Your task to perform on an android device: Open Wikipedia Image 0: 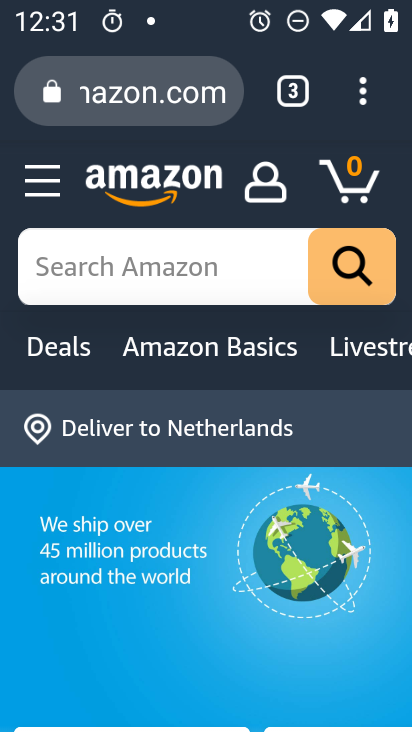
Step 0: press home button
Your task to perform on an android device: Open Wikipedia Image 1: 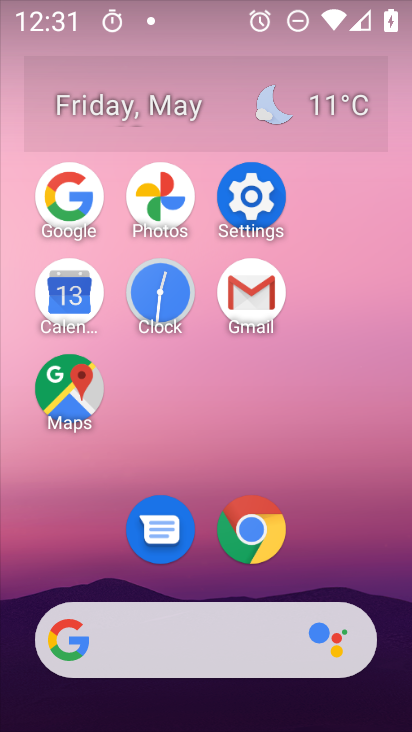
Step 1: click (257, 545)
Your task to perform on an android device: Open Wikipedia Image 2: 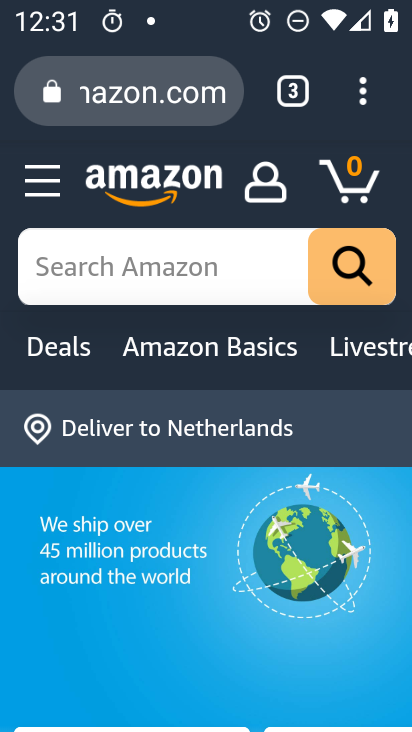
Step 2: click (286, 101)
Your task to perform on an android device: Open Wikipedia Image 3: 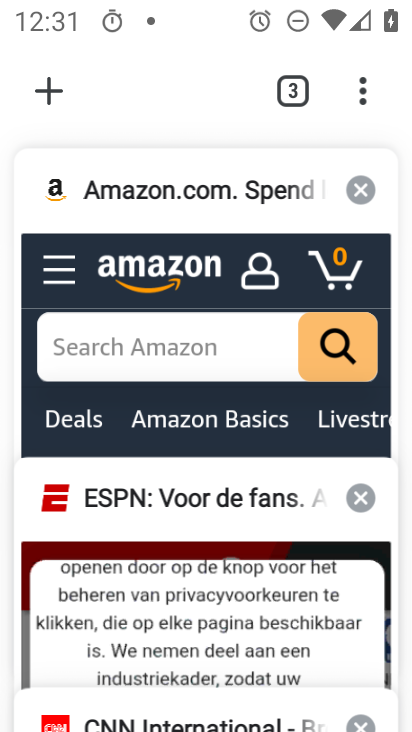
Step 3: click (57, 96)
Your task to perform on an android device: Open Wikipedia Image 4: 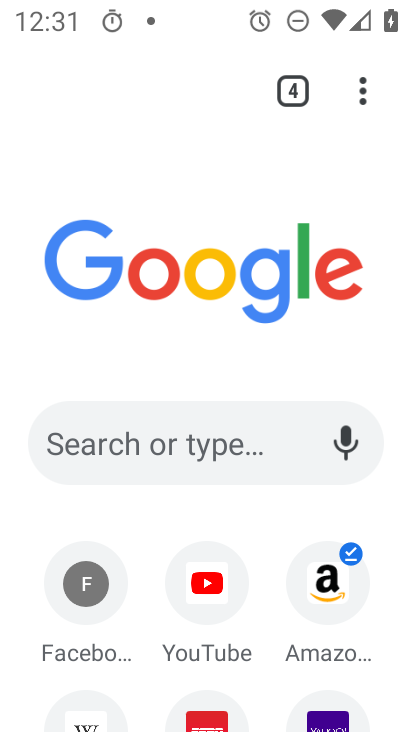
Step 4: click (93, 707)
Your task to perform on an android device: Open Wikipedia Image 5: 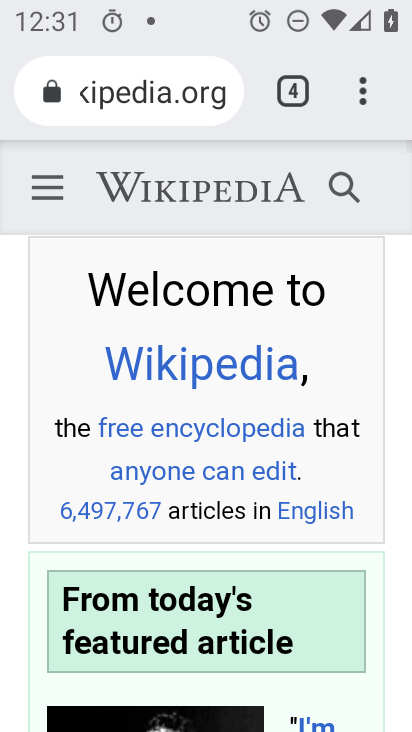
Step 5: task complete